Your task to perform on an android device: Search for seafood restaurants on Google Maps Image 0: 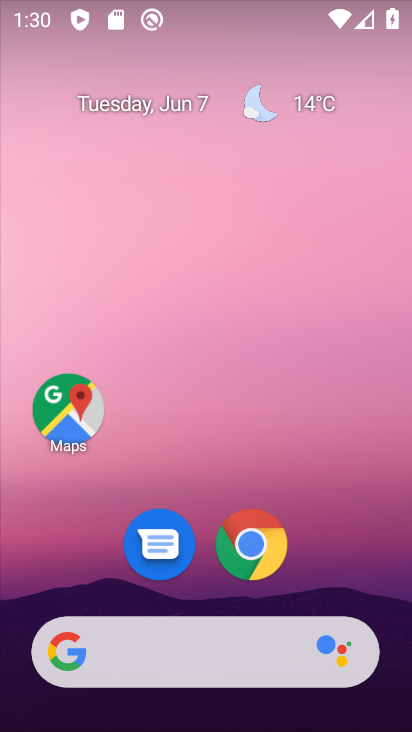
Step 0: click (45, 438)
Your task to perform on an android device: Search for seafood restaurants on Google Maps Image 1: 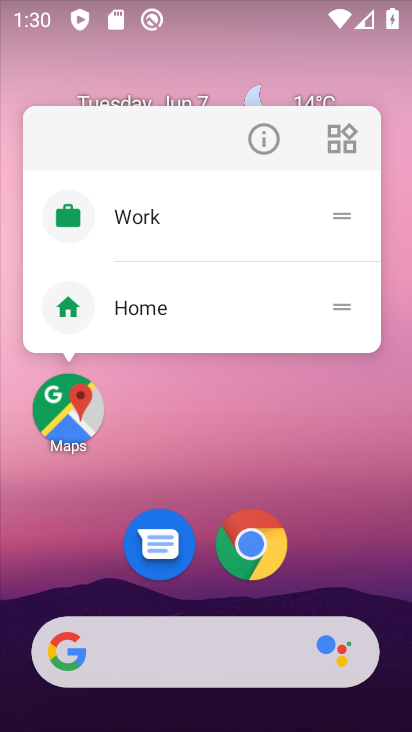
Step 1: click (58, 431)
Your task to perform on an android device: Search for seafood restaurants on Google Maps Image 2: 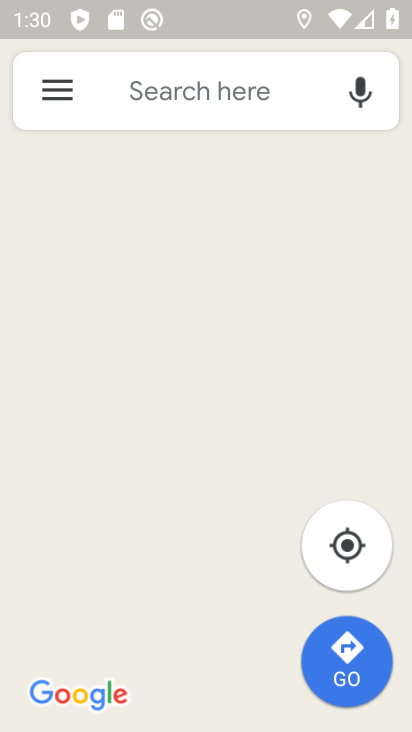
Step 2: click (194, 110)
Your task to perform on an android device: Search for seafood restaurants on Google Maps Image 3: 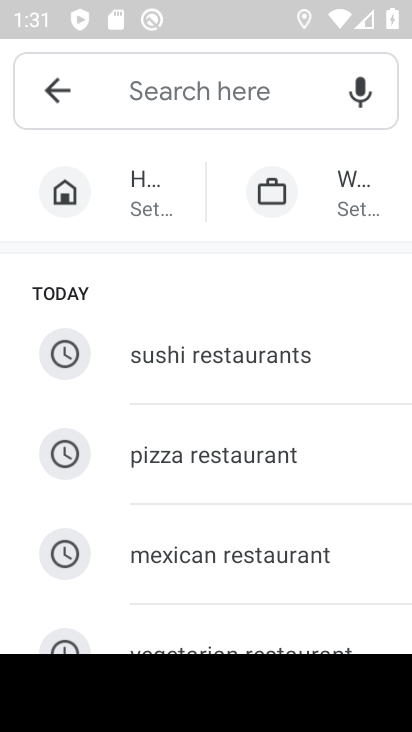
Step 3: type "seafood restaurants"
Your task to perform on an android device: Search for seafood restaurants on Google Maps Image 4: 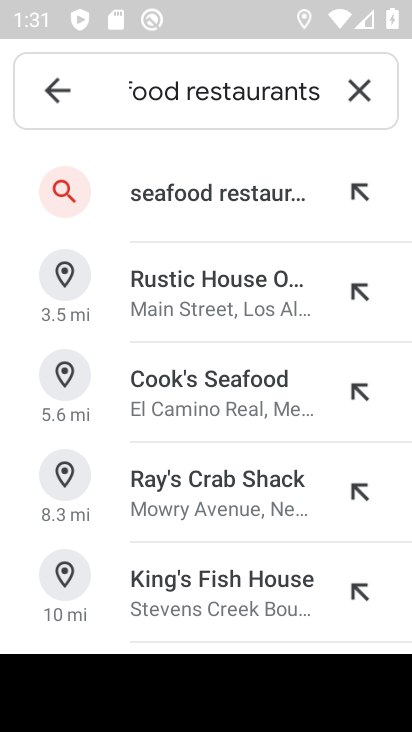
Step 4: click (237, 199)
Your task to perform on an android device: Search for seafood restaurants on Google Maps Image 5: 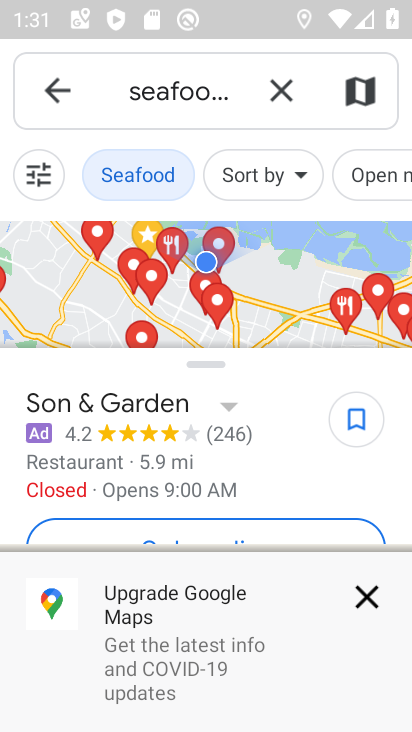
Step 5: task complete